Your task to perform on an android device: What's the weather today? Image 0: 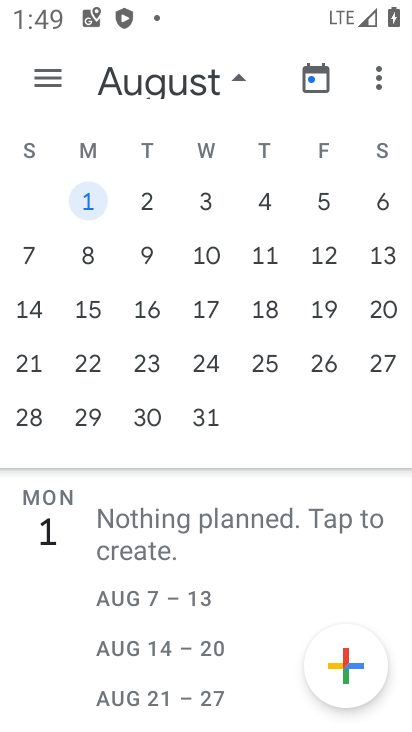
Step 0: press home button
Your task to perform on an android device: What's the weather today? Image 1: 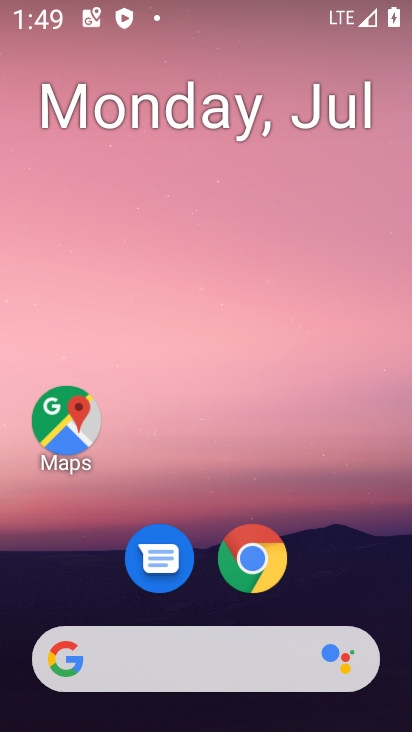
Step 1: click (256, 665)
Your task to perform on an android device: What's the weather today? Image 2: 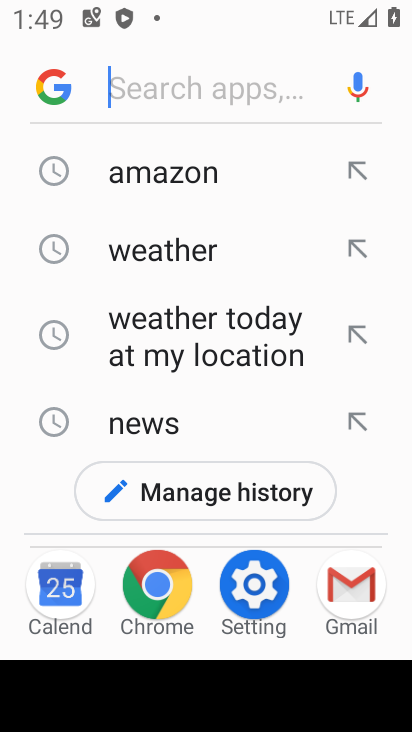
Step 2: click (203, 258)
Your task to perform on an android device: What's the weather today? Image 3: 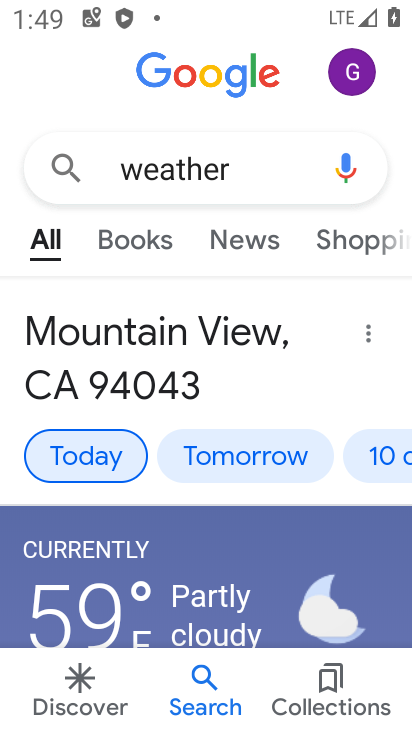
Step 3: task complete